Your task to perform on an android device: Search for pizza restaurants on Maps Image 0: 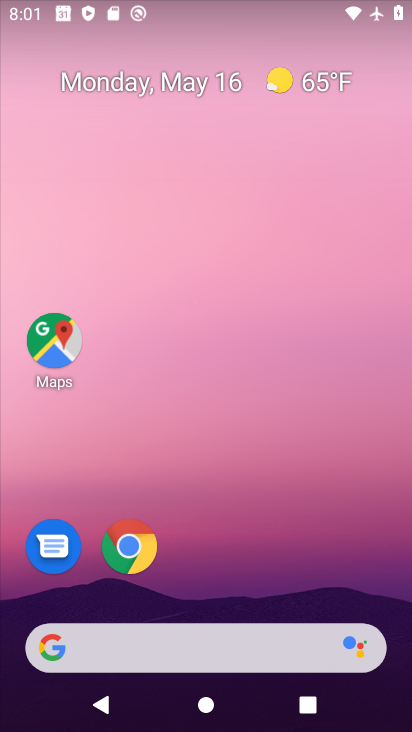
Step 0: click (154, 555)
Your task to perform on an android device: Search for pizza restaurants on Maps Image 1: 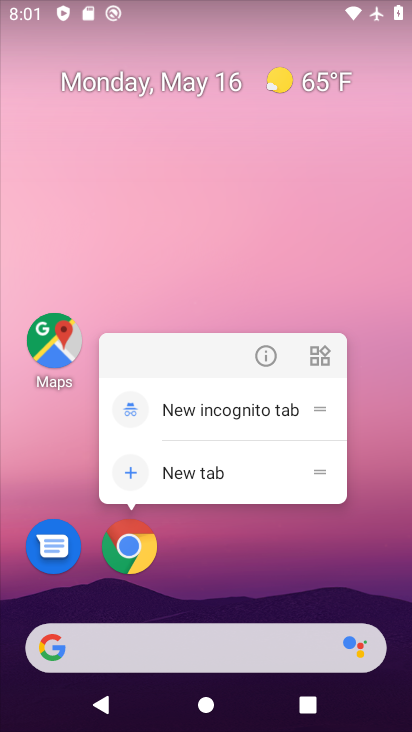
Step 1: click (302, 272)
Your task to perform on an android device: Search for pizza restaurants on Maps Image 2: 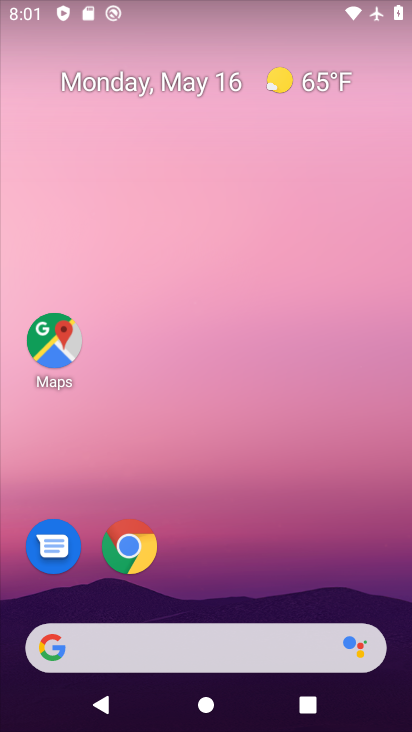
Step 2: click (26, 338)
Your task to perform on an android device: Search for pizza restaurants on Maps Image 3: 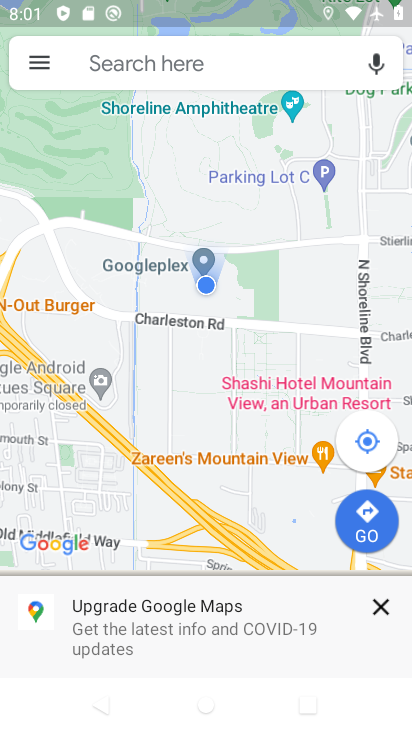
Step 3: click (248, 61)
Your task to perform on an android device: Search for pizza restaurants on Maps Image 4: 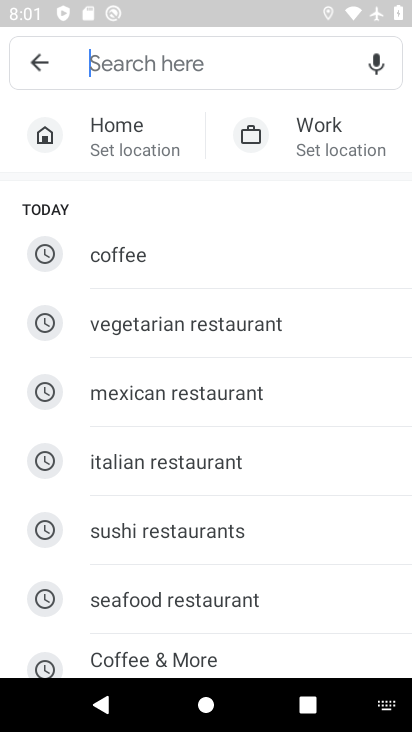
Step 4: type "pizza"
Your task to perform on an android device: Search for pizza restaurants on Maps Image 5: 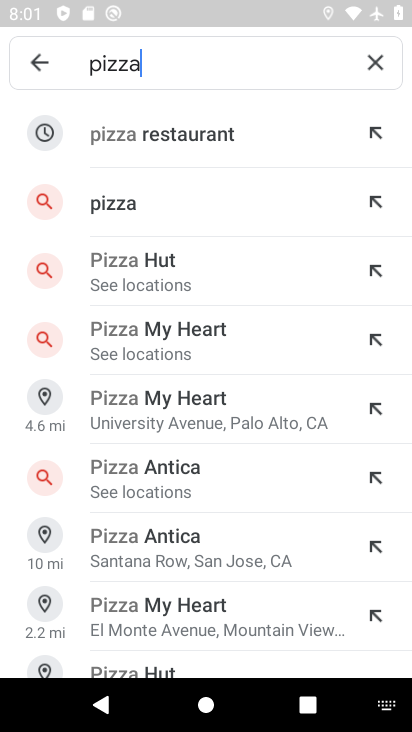
Step 5: click (288, 134)
Your task to perform on an android device: Search for pizza restaurants on Maps Image 6: 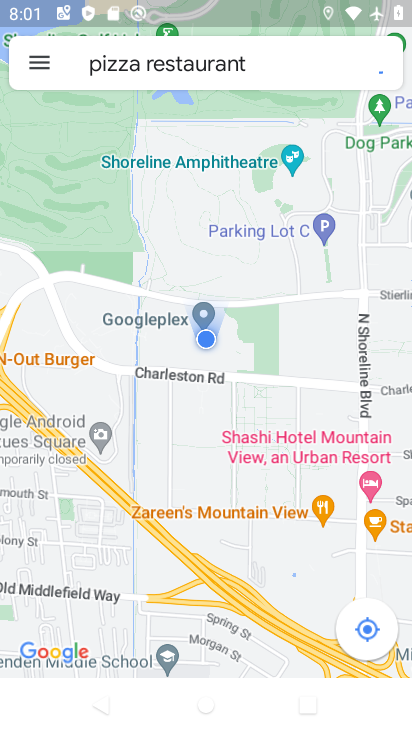
Step 6: task complete